Your task to perform on an android device: show emergency info Image 0: 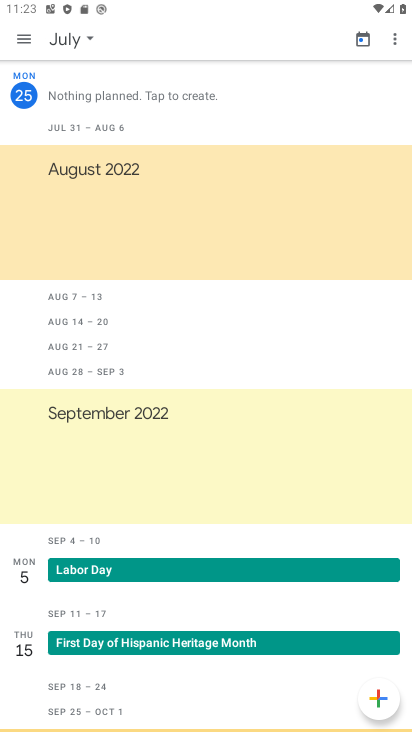
Step 0: press home button
Your task to perform on an android device: show emergency info Image 1: 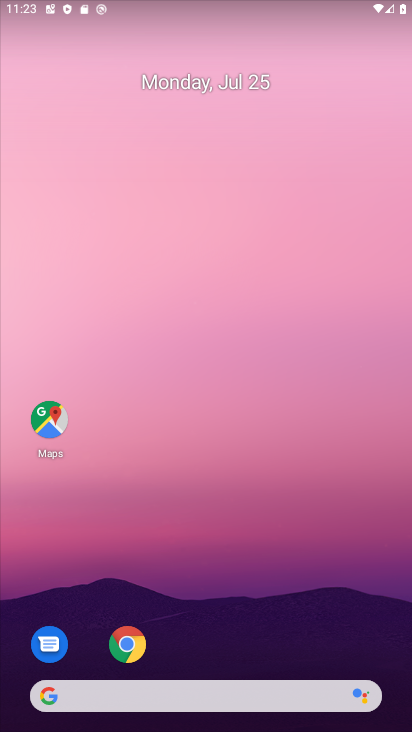
Step 1: drag from (170, 639) to (185, 108)
Your task to perform on an android device: show emergency info Image 2: 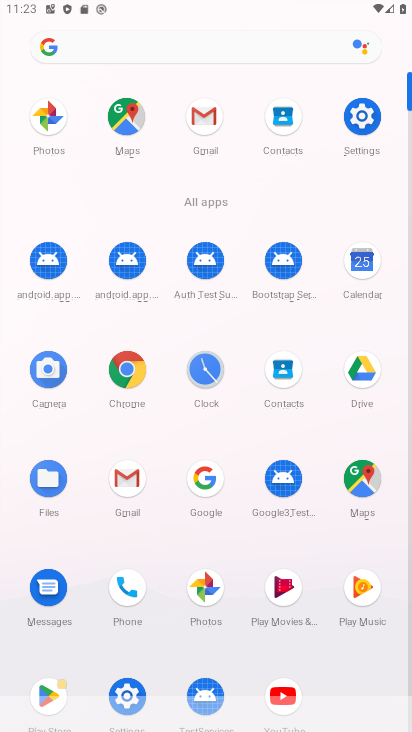
Step 2: click (373, 132)
Your task to perform on an android device: show emergency info Image 3: 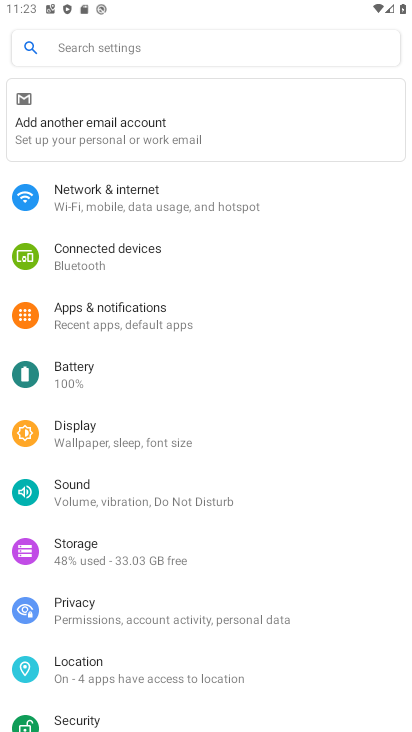
Step 3: drag from (146, 596) to (202, 5)
Your task to perform on an android device: show emergency info Image 4: 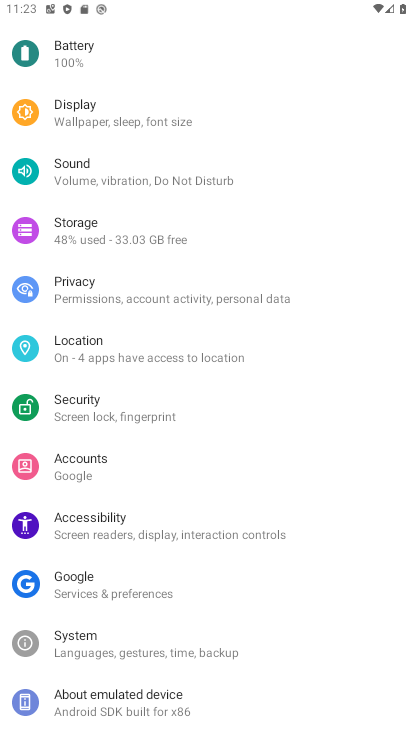
Step 4: click (41, 710)
Your task to perform on an android device: show emergency info Image 5: 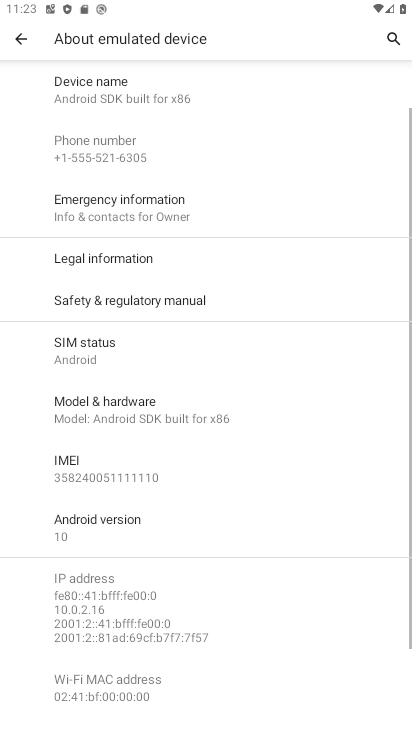
Step 5: click (127, 205)
Your task to perform on an android device: show emergency info Image 6: 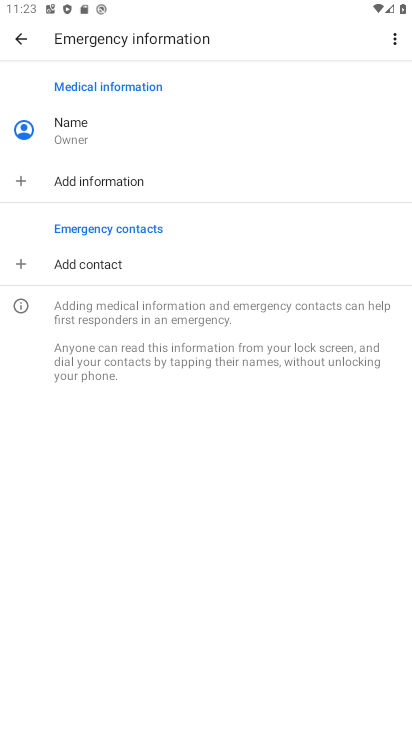
Step 6: task complete